Your task to perform on an android device: turn off notifications in google photos Image 0: 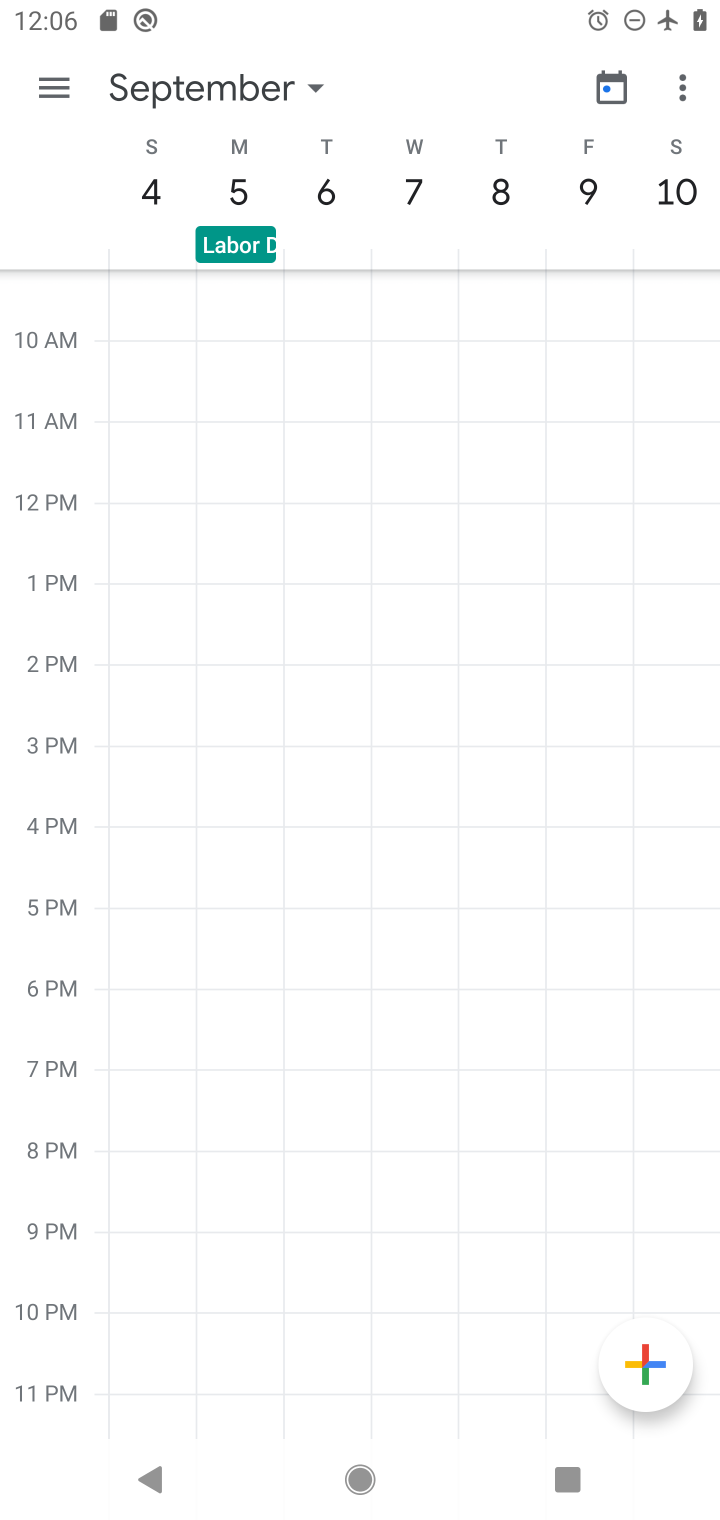
Step 0: press back button
Your task to perform on an android device: turn off notifications in google photos Image 1: 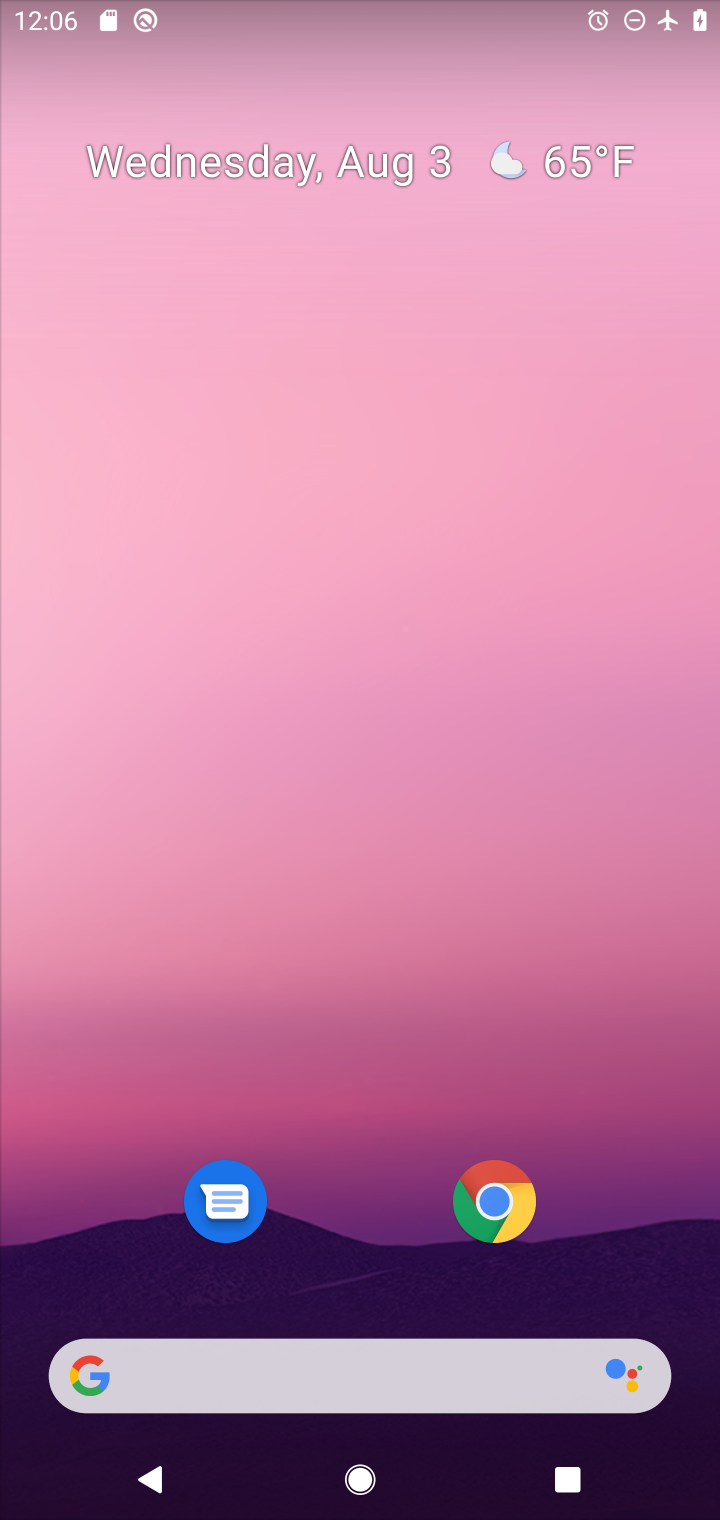
Step 1: drag from (342, 1348) to (663, 163)
Your task to perform on an android device: turn off notifications in google photos Image 2: 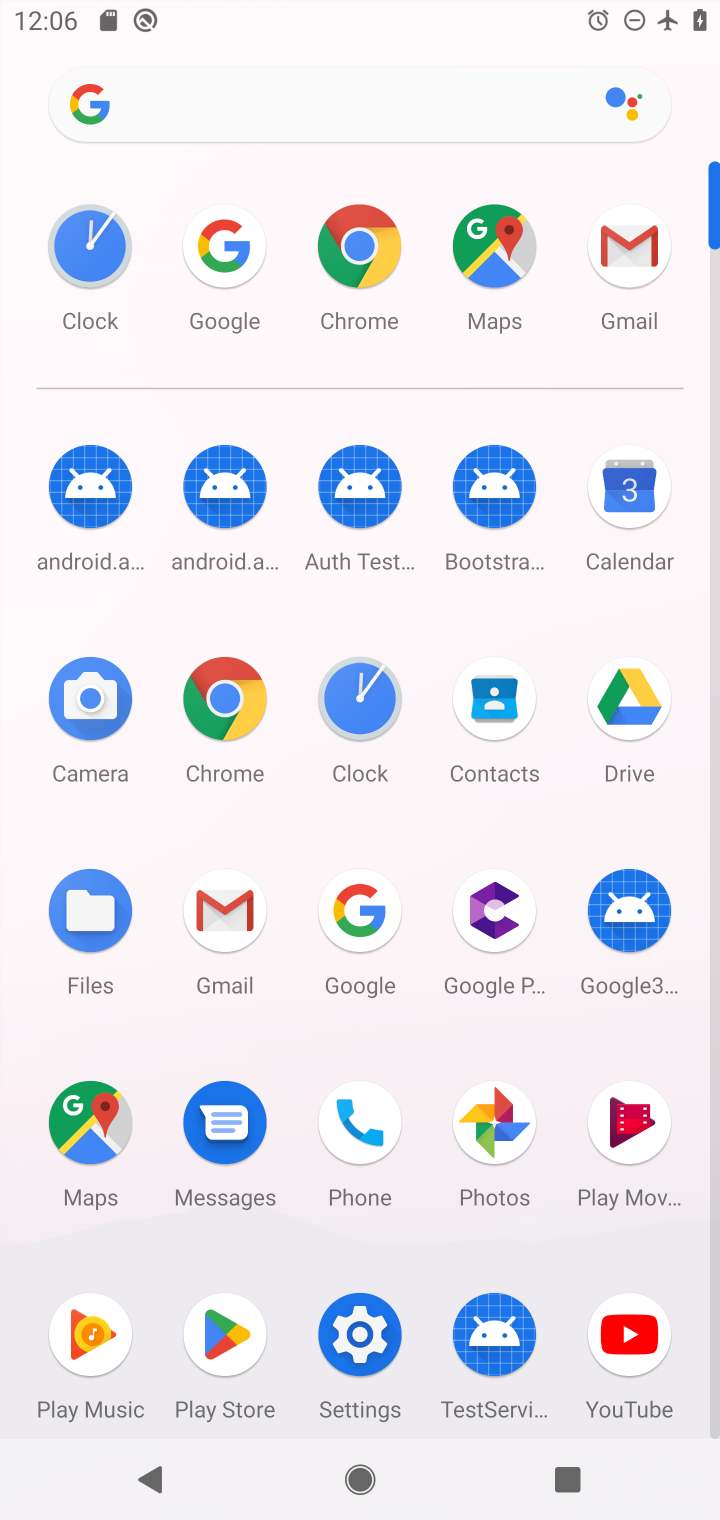
Step 2: click (493, 1128)
Your task to perform on an android device: turn off notifications in google photos Image 3: 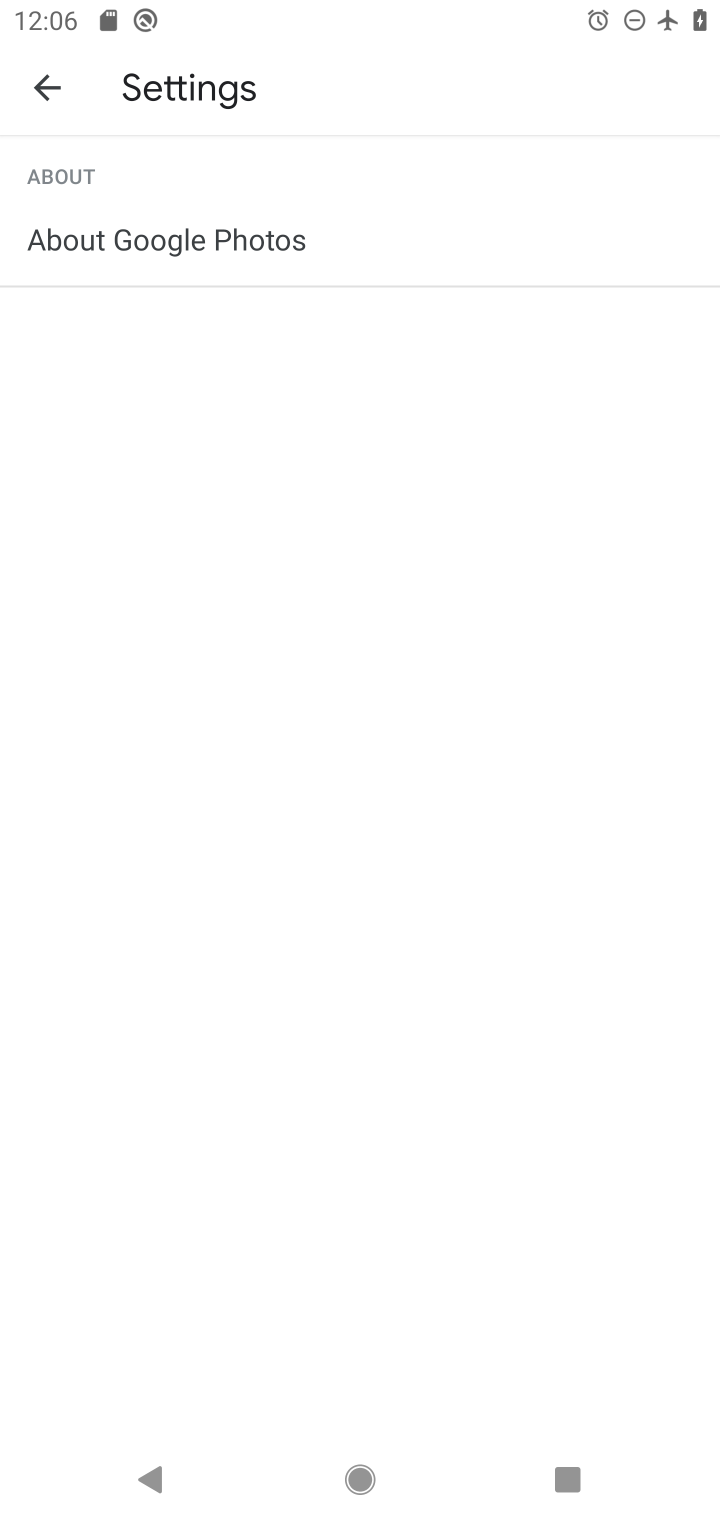
Step 3: click (48, 65)
Your task to perform on an android device: turn off notifications in google photos Image 4: 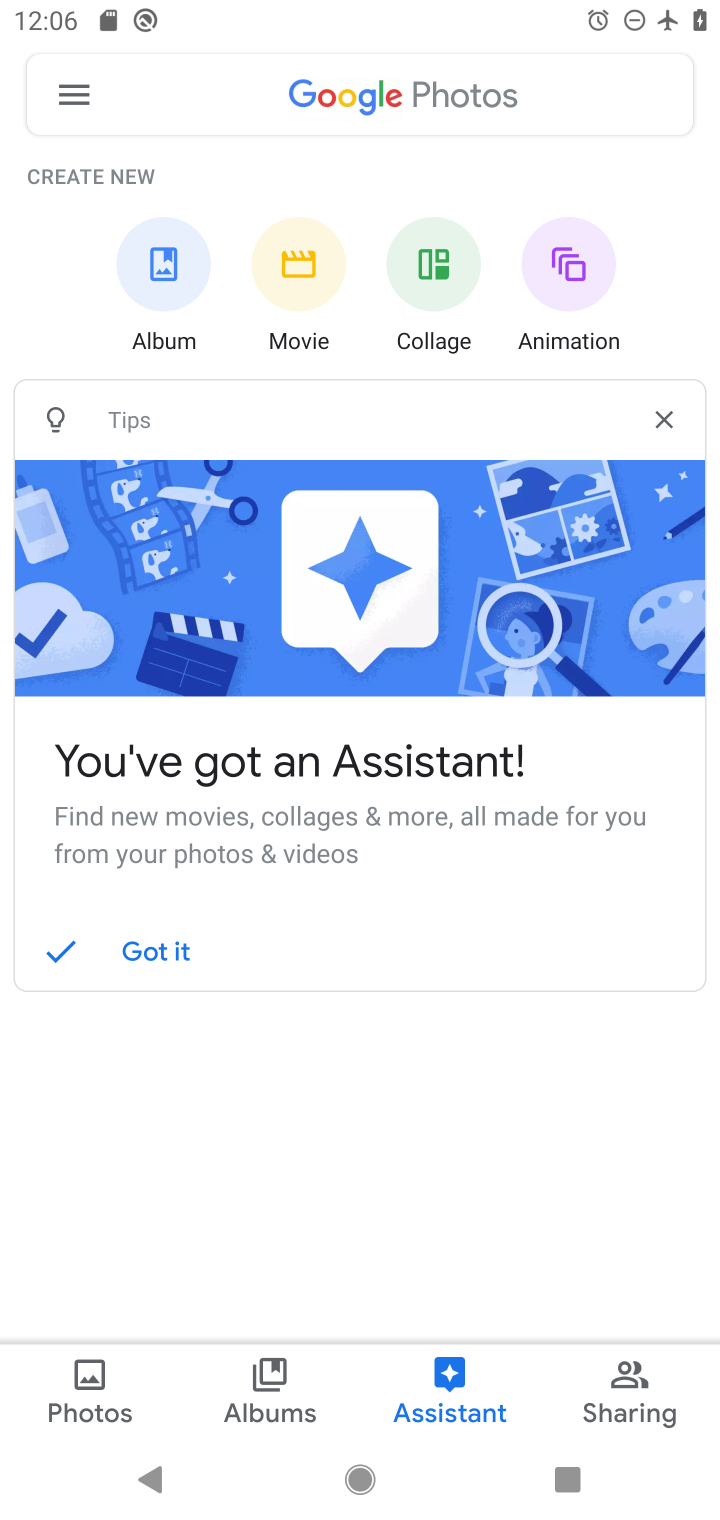
Step 4: click (54, 88)
Your task to perform on an android device: turn off notifications in google photos Image 5: 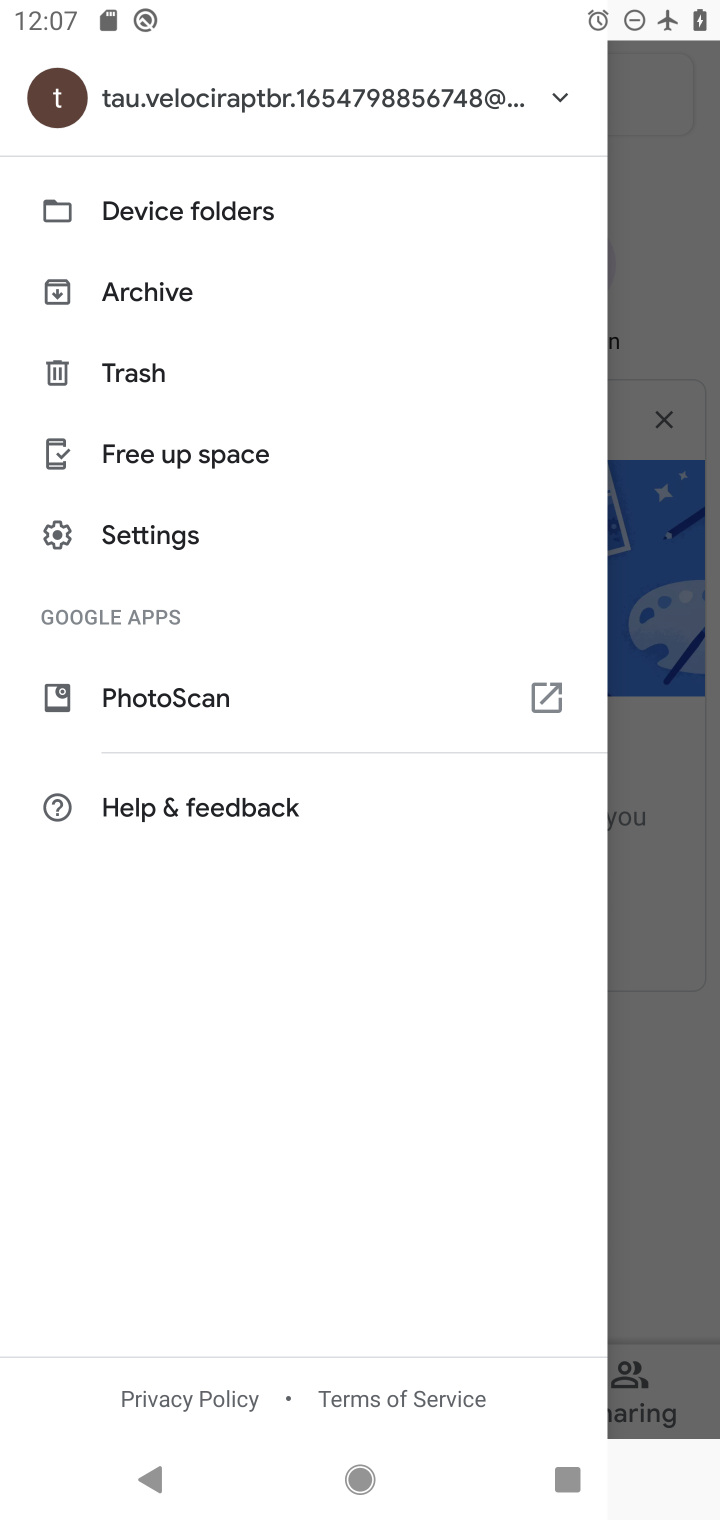
Step 5: click (151, 538)
Your task to perform on an android device: turn off notifications in google photos Image 6: 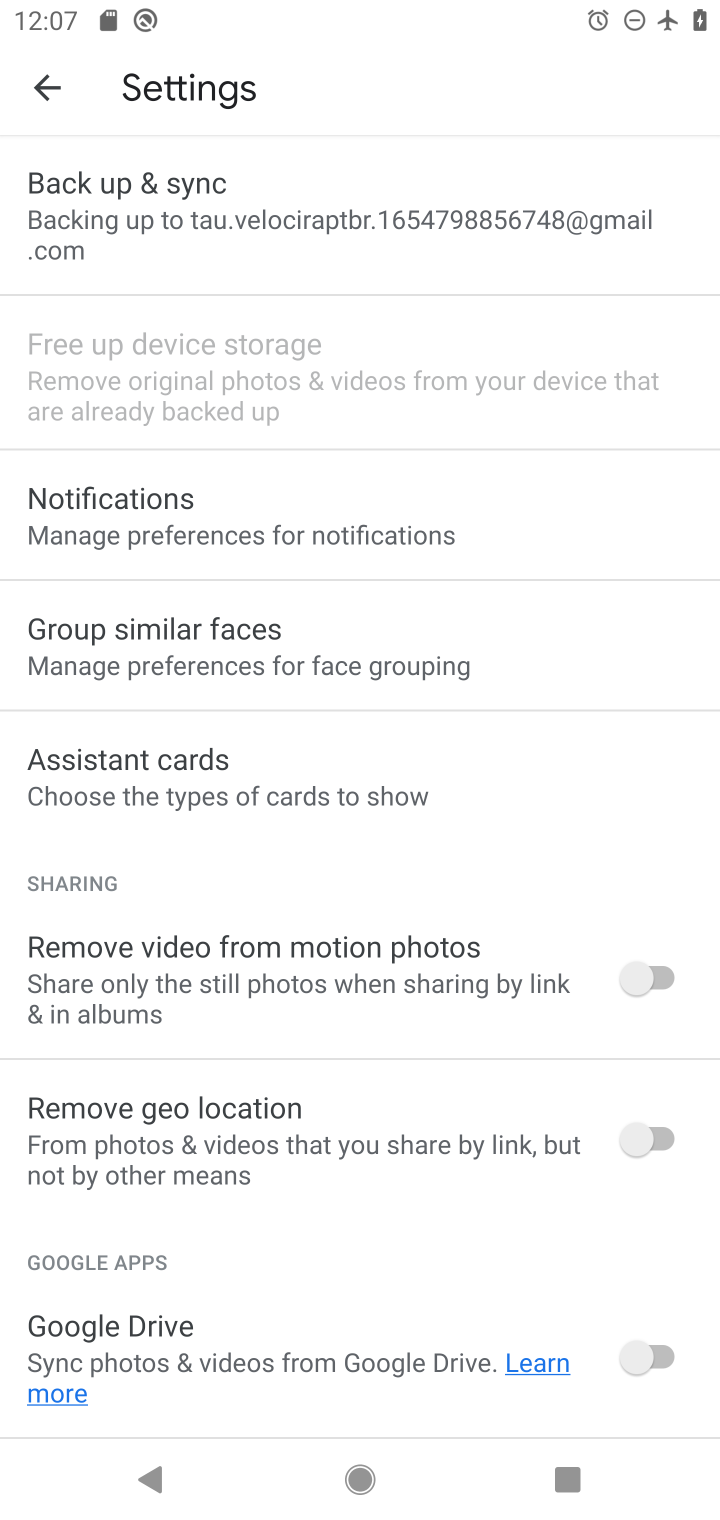
Step 6: click (118, 519)
Your task to perform on an android device: turn off notifications in google photos Image 7: 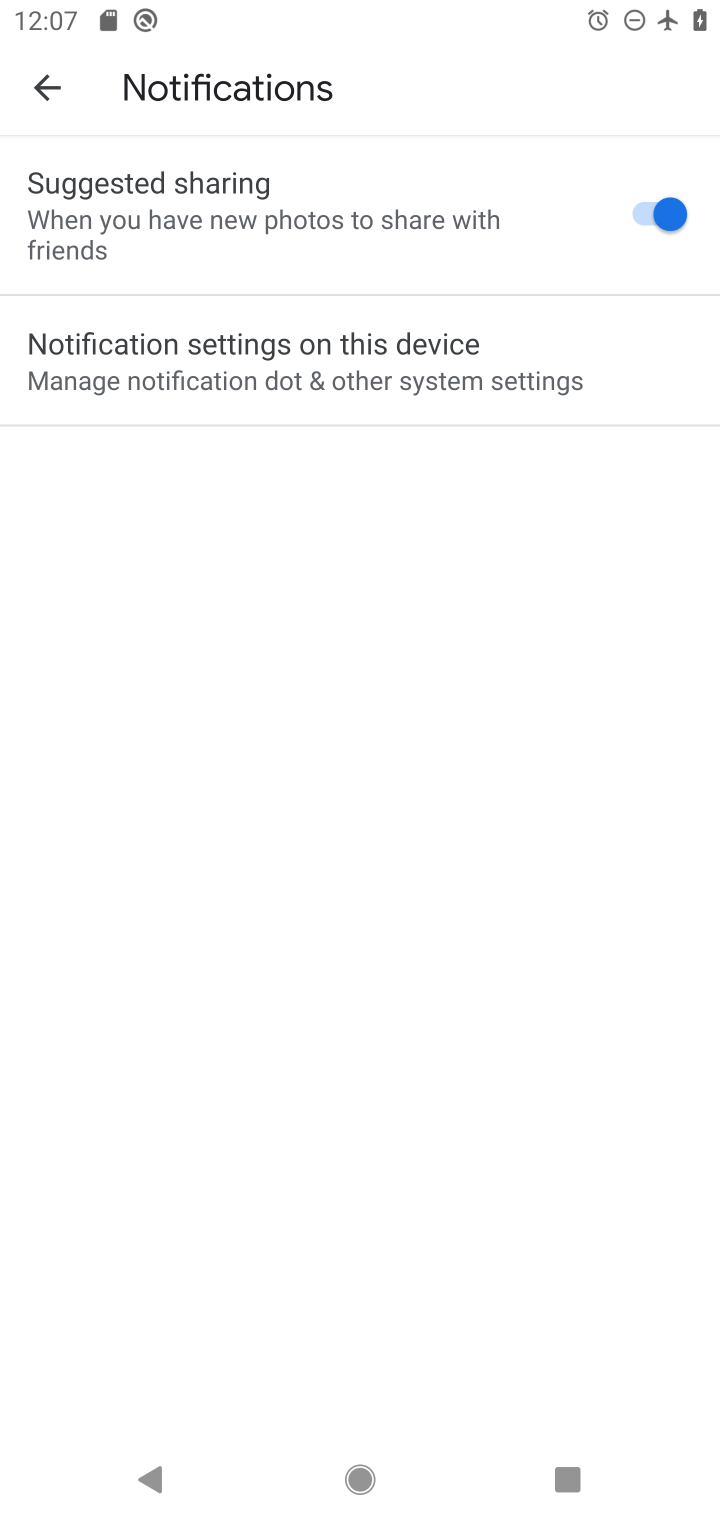
Step 7: click (462, 383)
Your task to perform on an android device: turn off notifications in google photos Image 8: 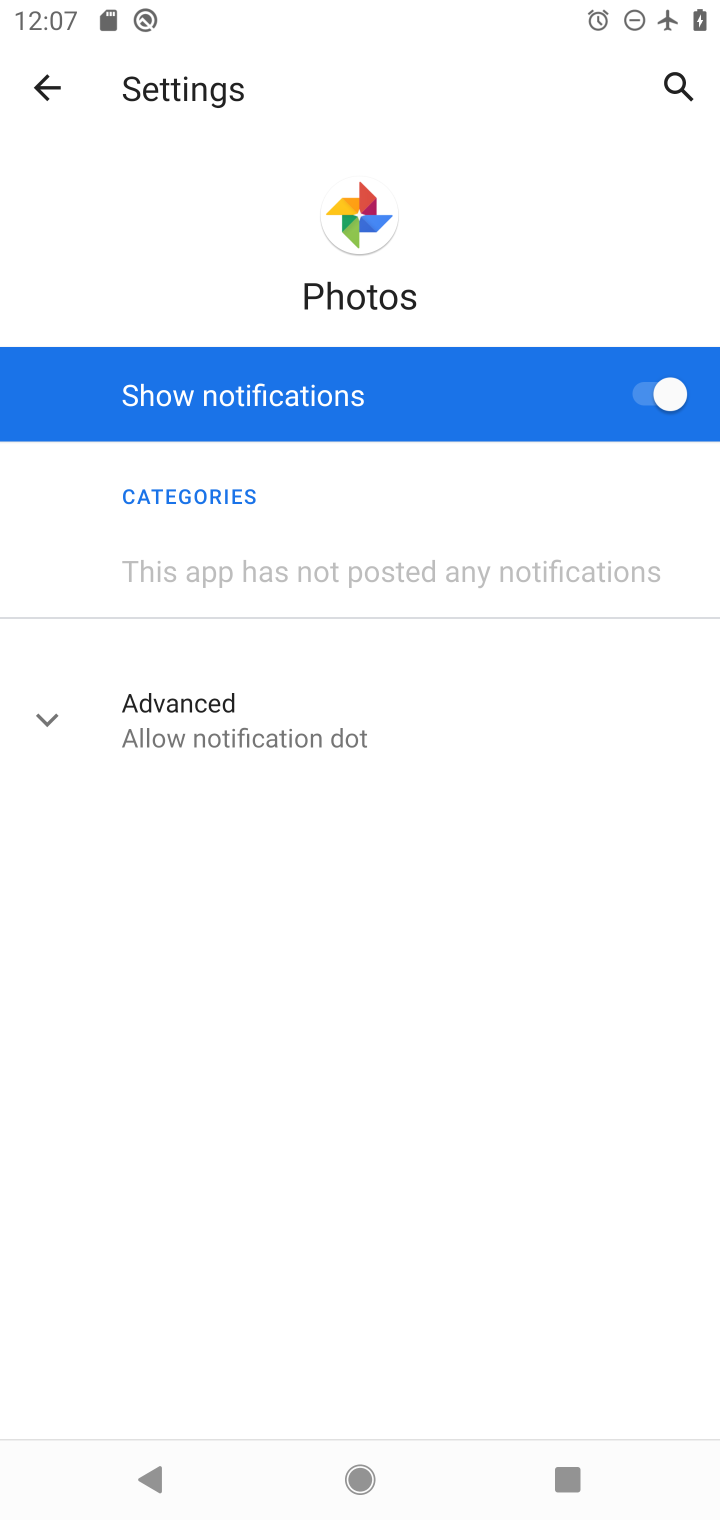
Step 8: click (664, 400)
Your task to perform on an android device: turn off notifications in google photos Image 9: 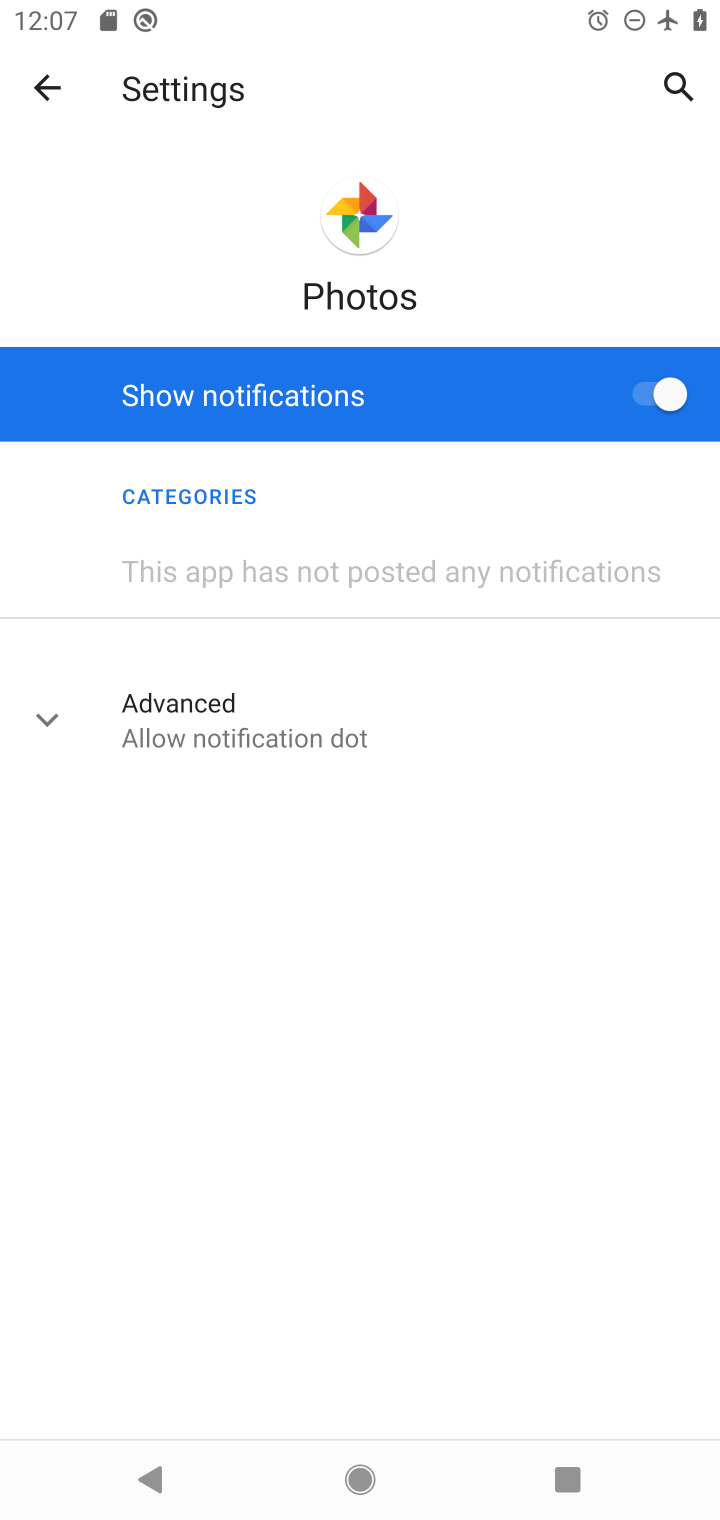
Step 9: task complete